Your task to perform on an android device: turn off wifi Image 0: 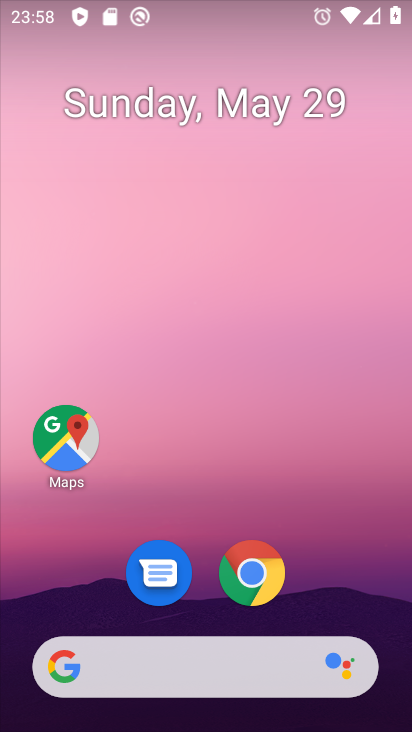
Step 0: drag from (347, 544) to (291, 63)
Your task to perform on an android device: turn off wifi Image 1: 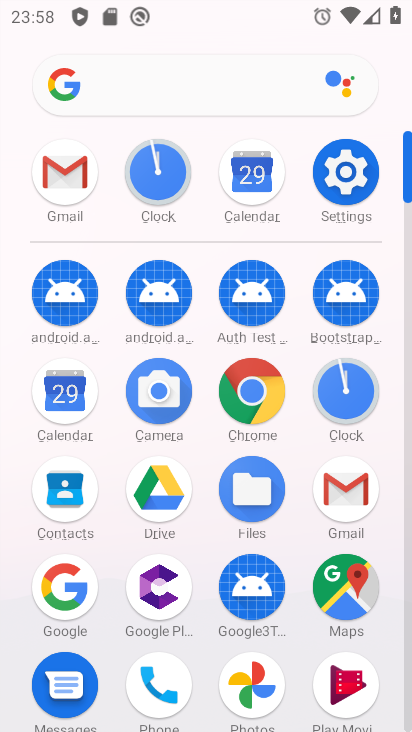
Step 1: click (364, 177)
Your task to perform on an android device: turn off wifi Image 2: 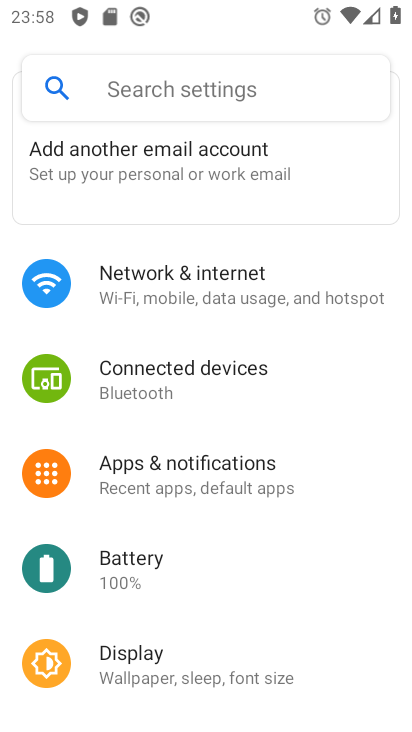
Step 2: click (234, 264)
Your task to perform on an android device: turn off wifi Image 3: 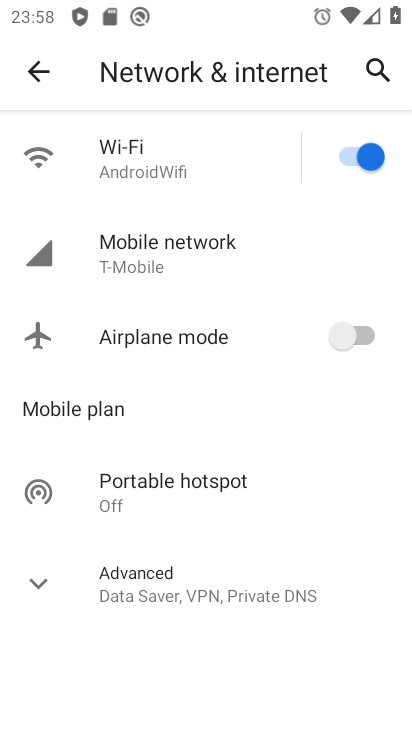
Step 3: click (369, 152)
Your task to perform on an android device: turn off wifi Image 4: 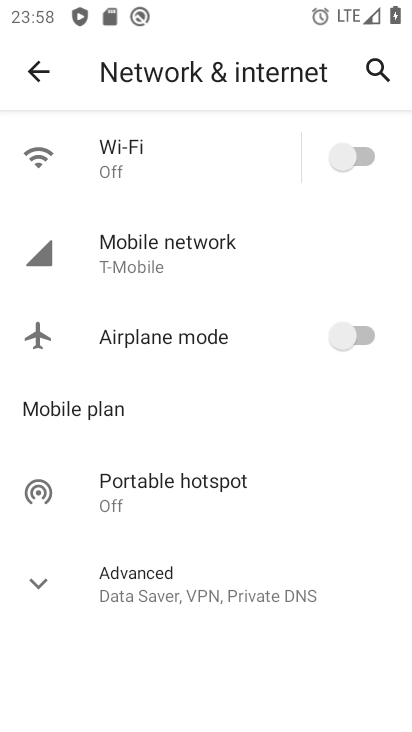
Step 4: task complete